Your task to perform on an android device: open chrome privacy settings Image 0: 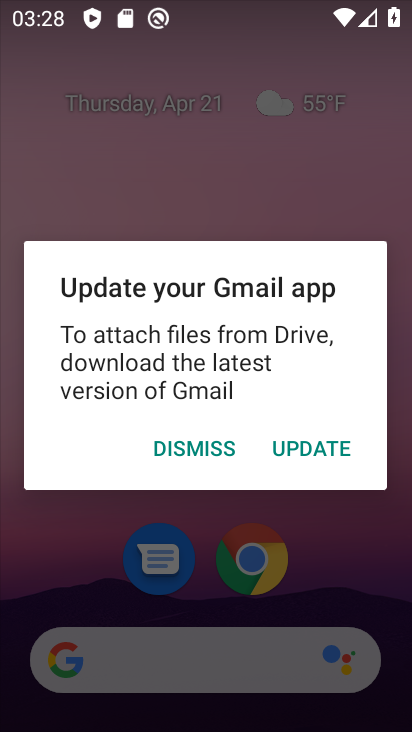
Step 0: press home button
Your task to perform on an android device: open chrome privacy settings Image 1: 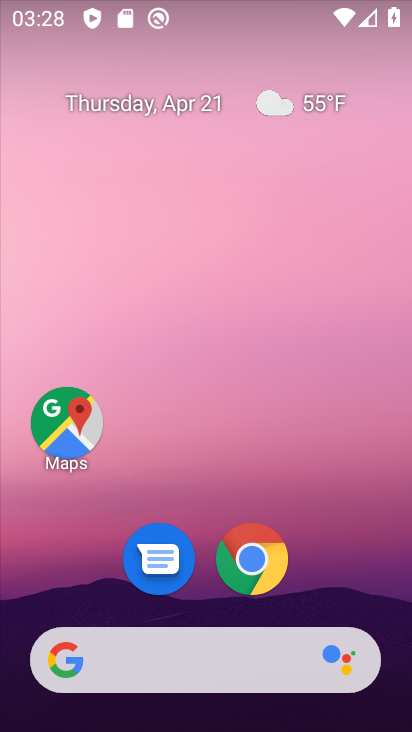
Step 1: drag from (341, 564) to (303, 302)
Your task to perform on an android device: open chrome privacy settings Image 2: 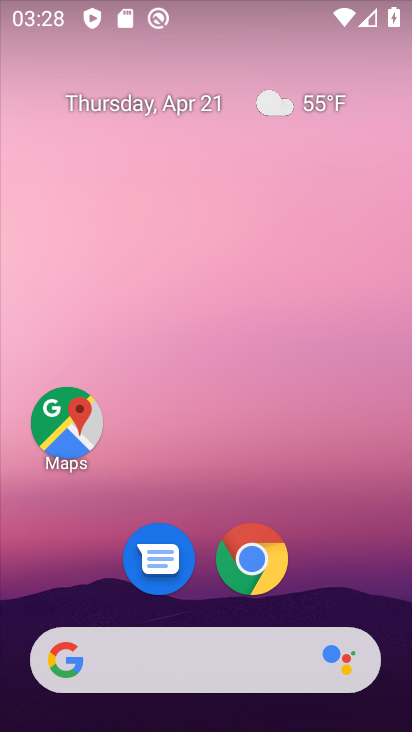
Step 2: click (254, 584)
Your task to perform on an android device: open chrome privacy settings Image 3: 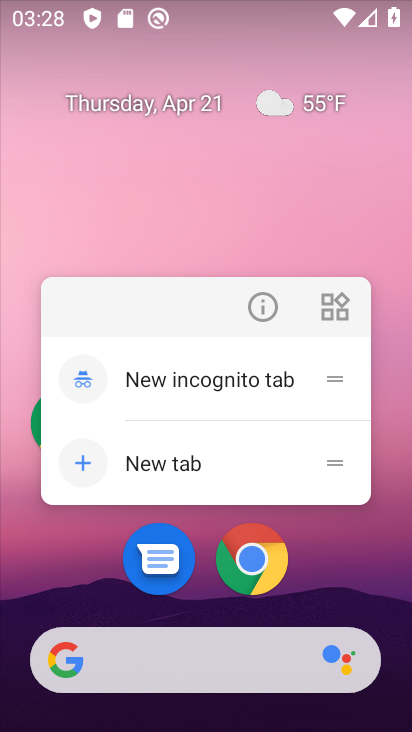
Step 3: click (276, 561)
Your task to perform on an android device: open chrome privacy settings Image 4: 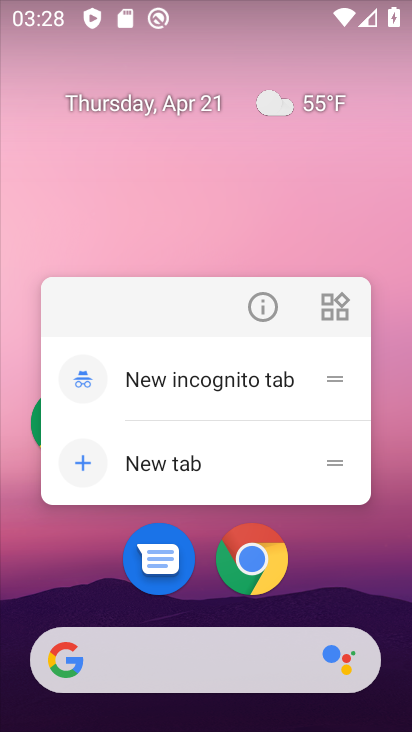
Step 4: click (276, 544)
Your task to perform on an android device: open chrome privacy settings Image 5: 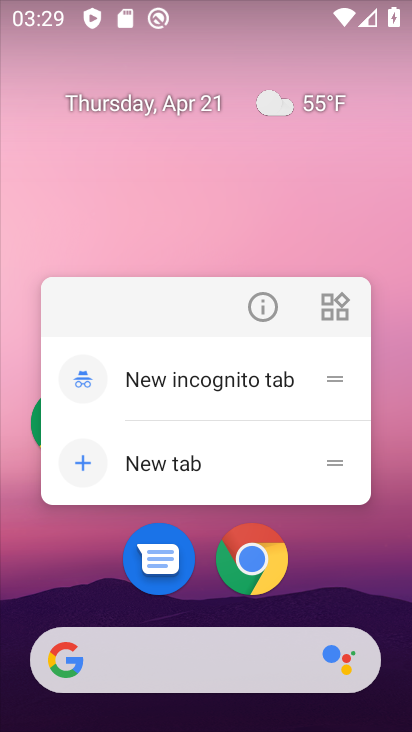
Step 5: click (262, 558)
Your task to perform on an android device: open chrome privacy settings Image 6: 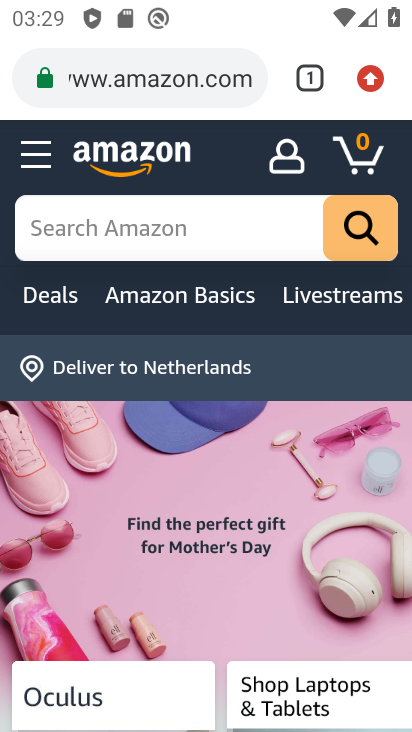
Step 6: click (377, 85)
Your task to perform on an android device: open chrome privacy settings Image 7: 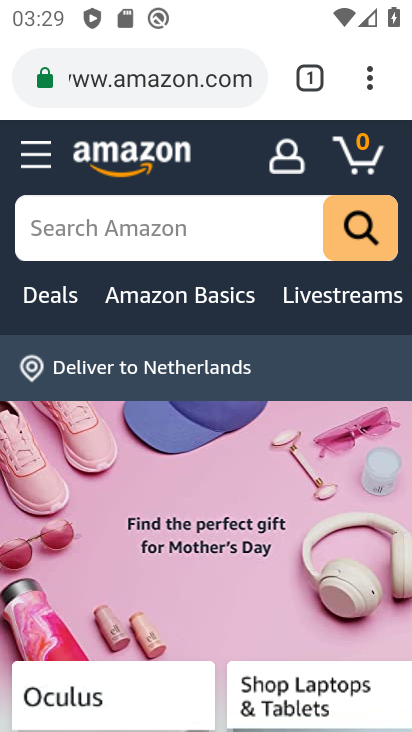
Step 7: click (375, 84)
Your task to perform on an android device: open chrome privacy settings Image 8: 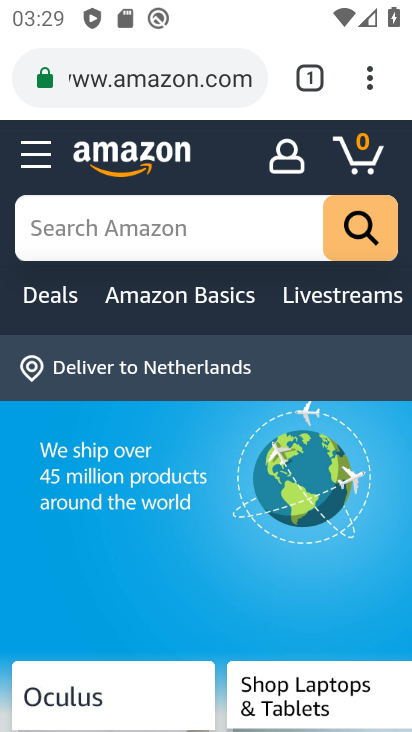
Step 8: click (372, 80)
Your task to perform on an android device: open chrome privacy settings Image 9: 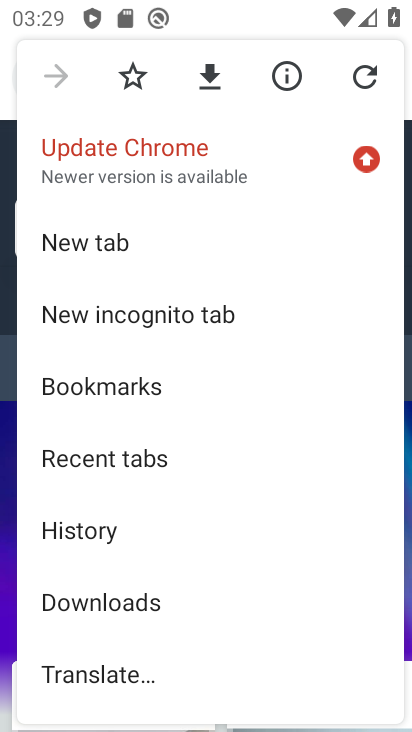
Step 9: drag from (272, 577) to (219, 179)
Your task to perform on an android device: open chrome privacy settings Image 10: 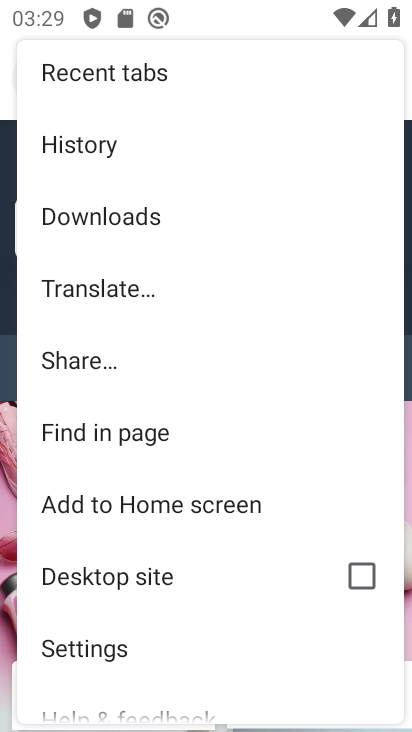
Step 10: click (105, 660)
Your task to perform on an android device: open chrome privacy settings Image 11: 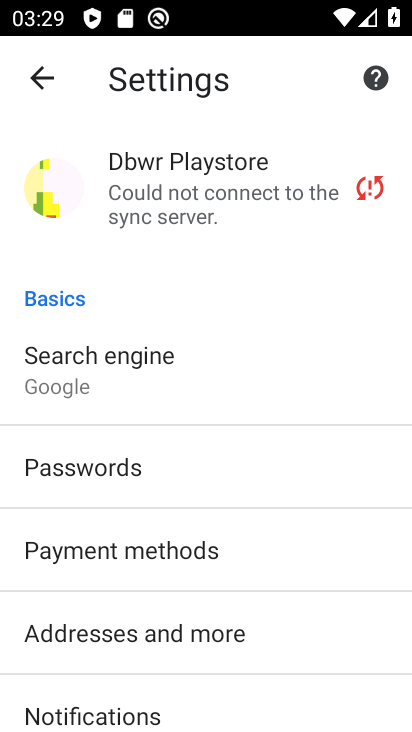
Step 11: drag from (226, 528) to (299, 275)
Your task to perform on an android device: open chrome privacy settings Image 12: 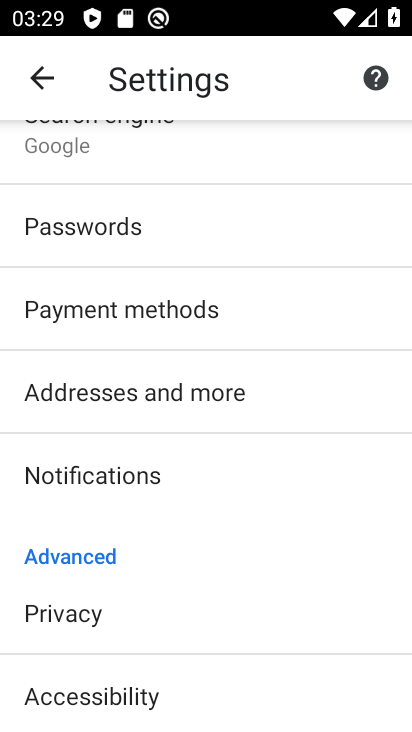
Step 12: click (136, 622)
Your task to perform on an android device: open chrome privacy settings Image 13: 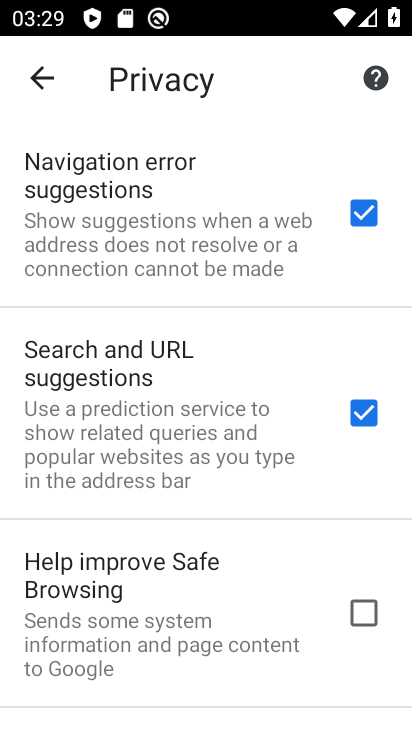
Step 13: task complete